Your task to perform on an android device: add a contact Image 0: 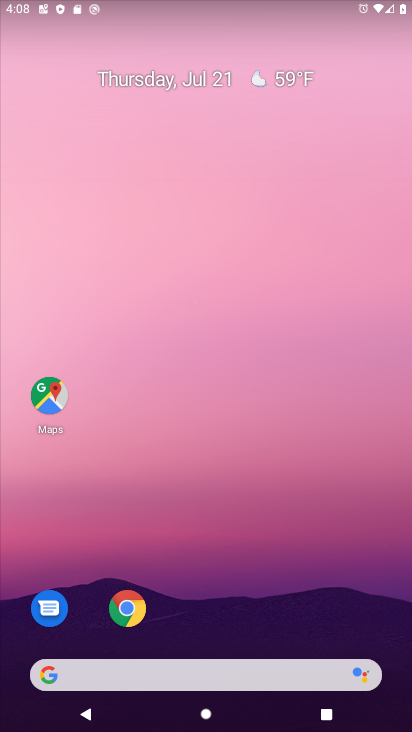
Step 0: drag from (269, 683) to (191, 5)
Your task to perform on an android device: add a contact Image 1: 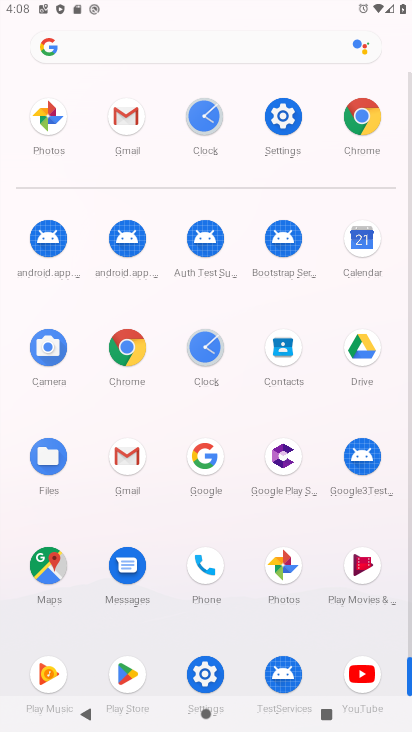
Step 1: click (283, 360)
Your task to perform on an android device: add a contact Image 2: 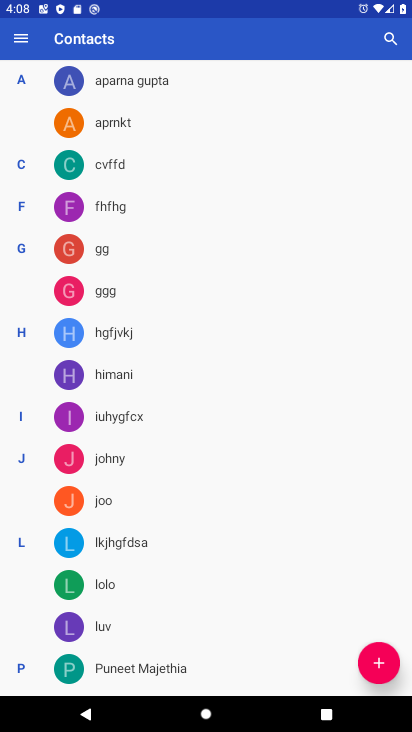
Step 2: click (388, 661)
Your task to perform on an android device: add a contact Image 3: 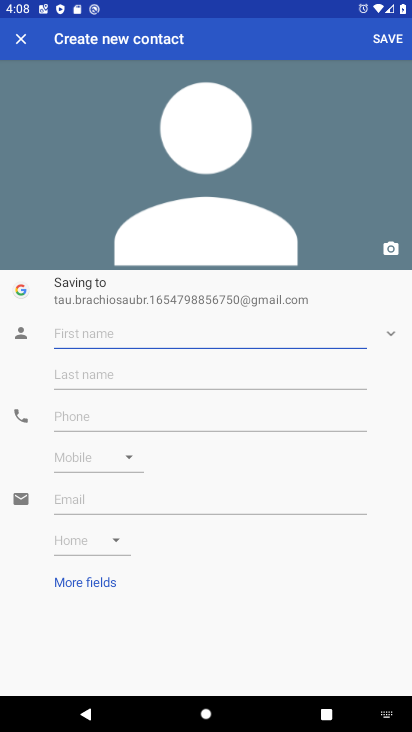
Step 3: click (154, 338)
Your task to perform on an android device: add a contact Image 4: 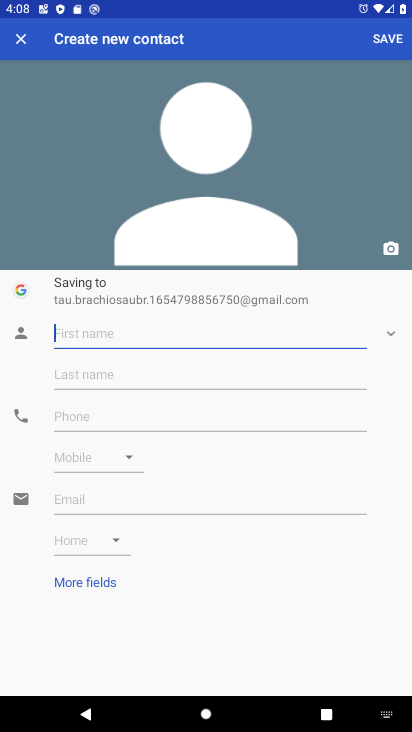
Step 4: type "swetank"
Your task to perform on an android device: add a contact Image 5: 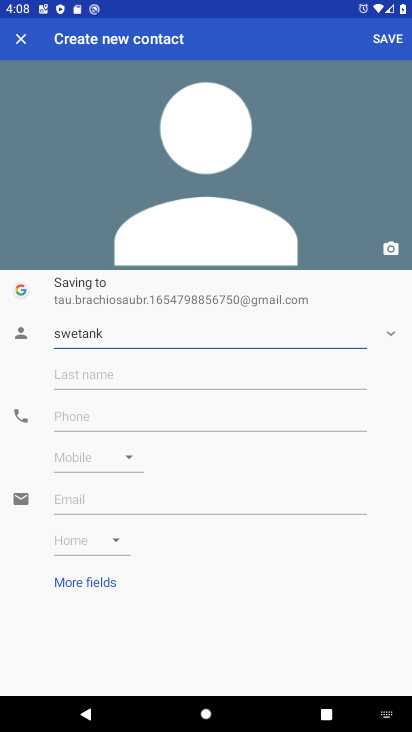
Step 5: click (152, 426)
Your task to perform on an android device: add a contact Image 6: 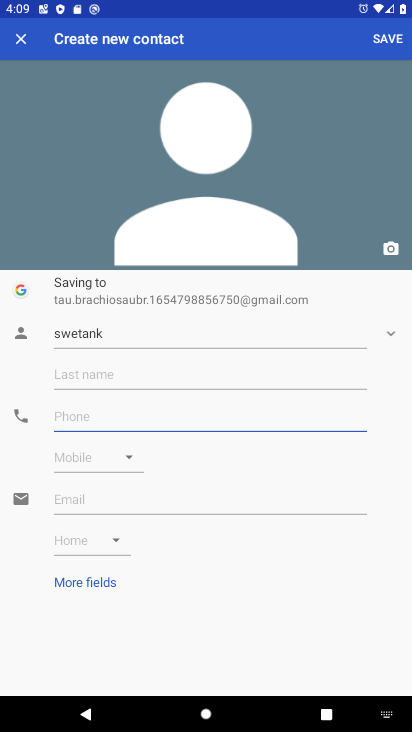
Step 6: type "9897969594"
Your task to perform on an android device: add a contact Image 7: 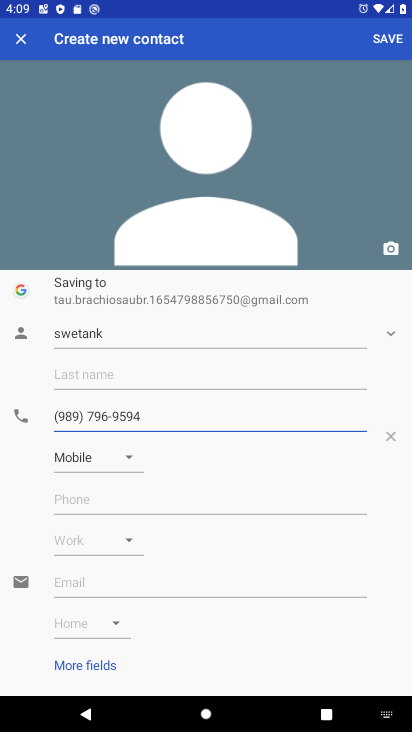
Step 7: click (386, 41)
Your task to perform on an android device: add a contact Image 8: 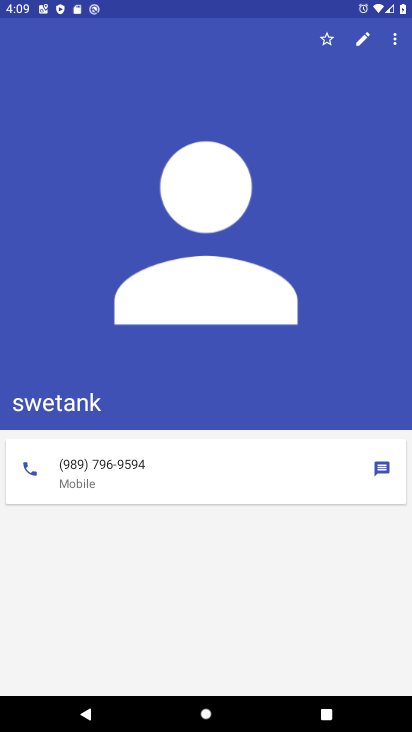
Step 8: task complete